Your task to perform on an android device: Open internet settings Image 0: 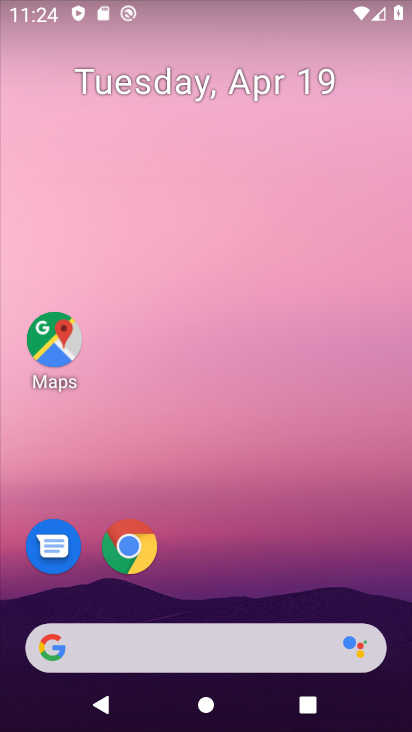
Step 0: drag from (369, 626) to (368, 49)
Your task to perform on an android device: Open internet settings Image 1: 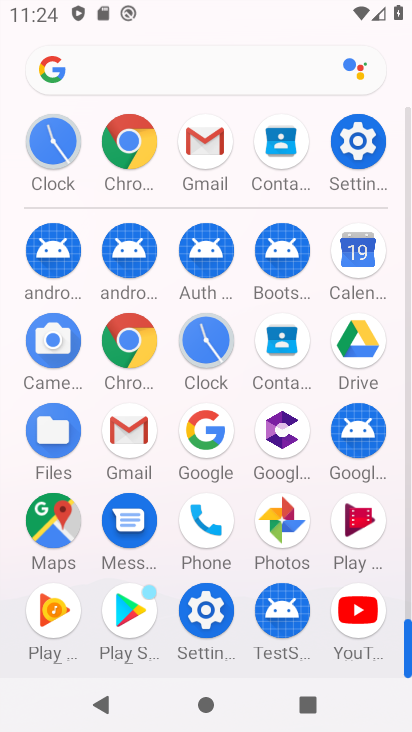
Step 1: click (360, 139)
Your task to perform on an android device: Open internet settings Image 2: 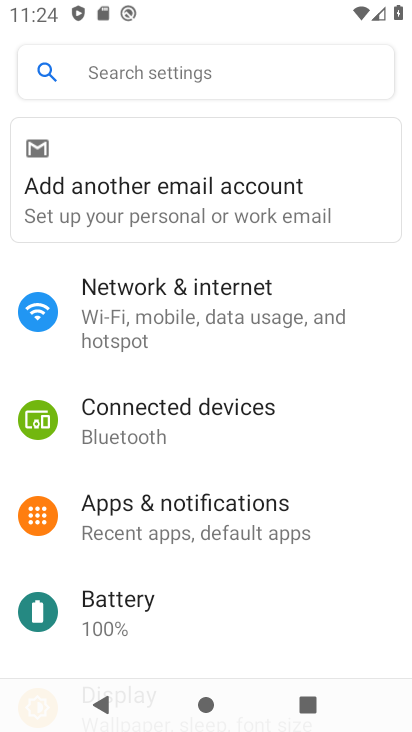
Step 2: click (166, 317)
Your task to perform on an android device: Open internet settings Image 3: 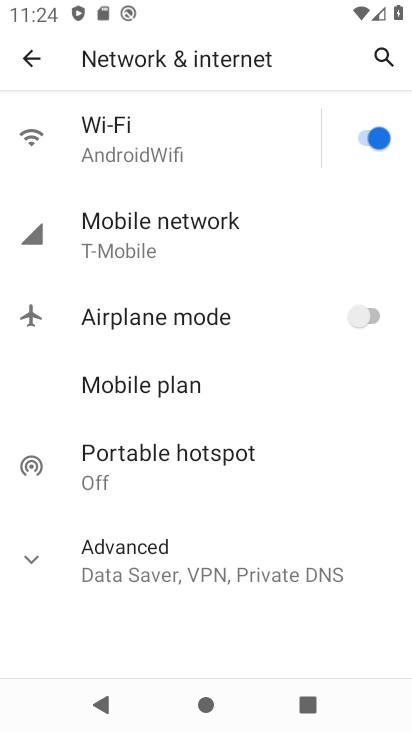
Step 3: drag from (268, 504) to (273, 167)
Your task to perform on an android device: Open internet settings Image 4: 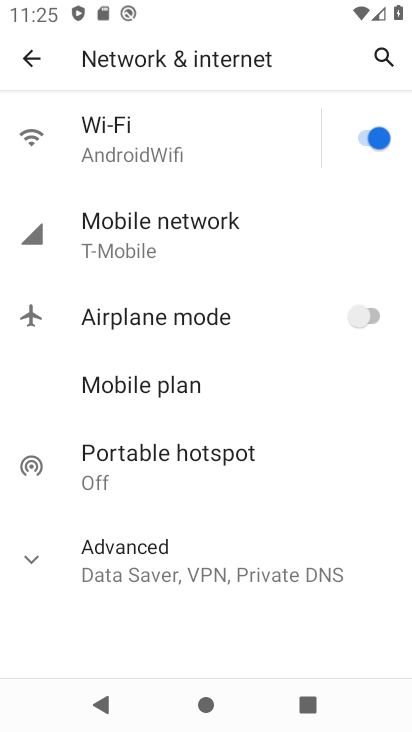
Step 4: click (49, 557)
Your task to perform on an android device: Open internet settings Image 5: 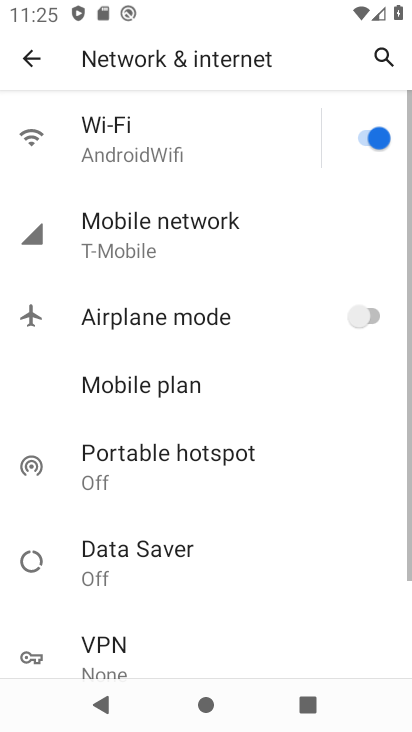
Step 5: task complete